Your task to perform on an android device: What is the recent news? Image 0: 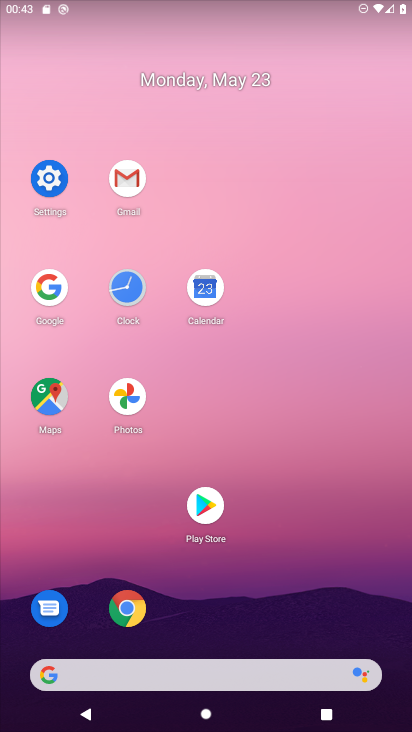
Step 0: click (44, 296)
Your task to perform on an android device: What is the recent news? Image 1: 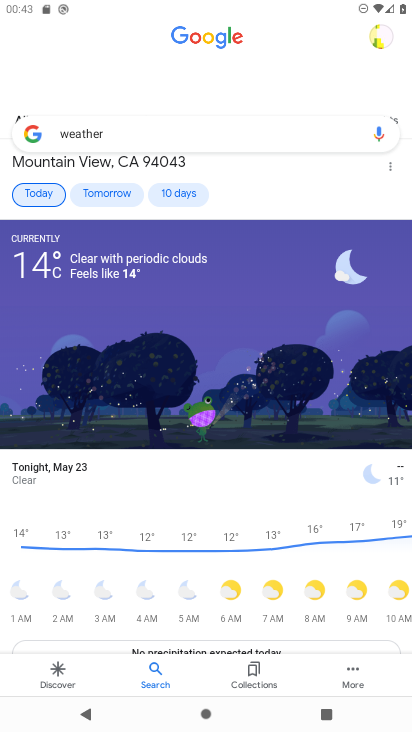
Step 1: click (183, 137)
Your task to perform on an android device: What is the recent news? Image 2: 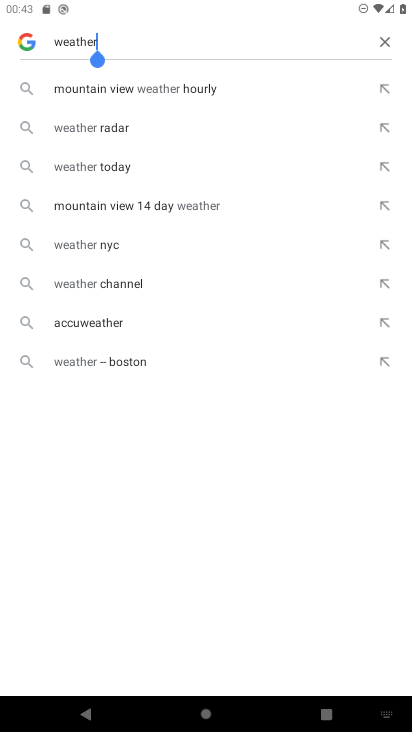
Step 2: click (376, 46)
Your task to perform on an android device: What is the recent news? Image 3: 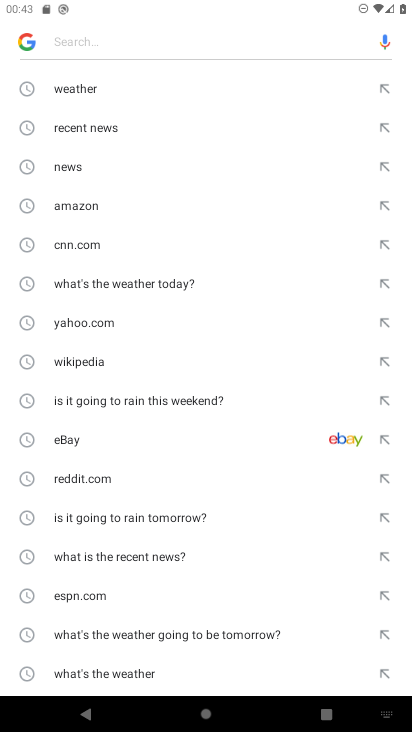
Step 3: click (101, 160)
Your task to perform on an android device: What is the recent news? Image 4: 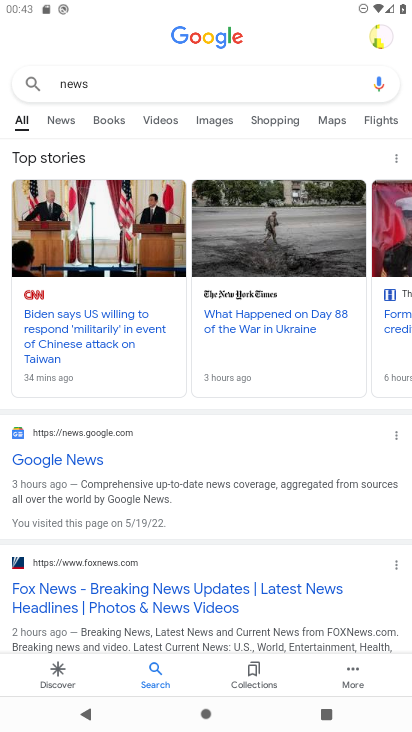
Step 4: task complete